Your task to perform on an android device: turn on data saver in the chrome app Image 0: 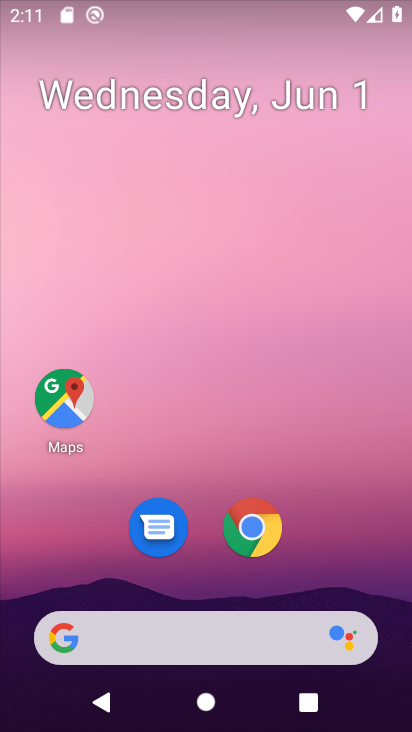
Step 0: click (256, 525)
Your task to perform on an android device: turn on data saver in the chrome app Image 1: 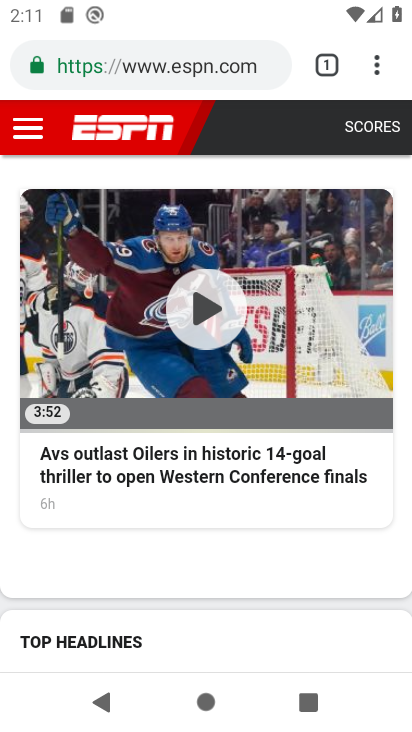
Step 1: click (380, 66)
Your task to perform on an android device: turn on data saver in the chrome app Image 2: 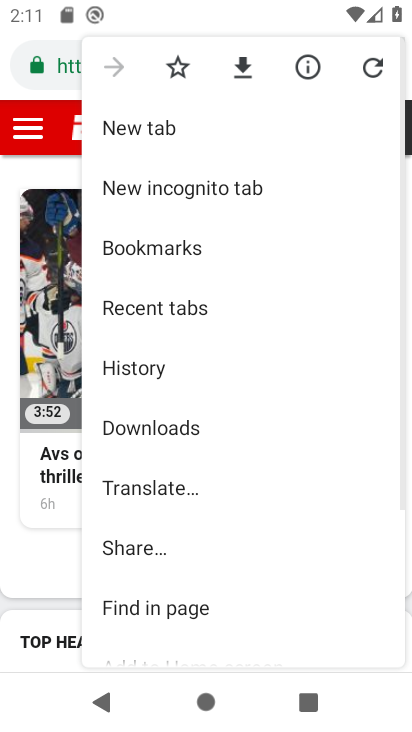
Step 2: drag from (186, 602) to (235, 217)
Your task to perform on an android device: turn on data saver in the chrome app Image 3: 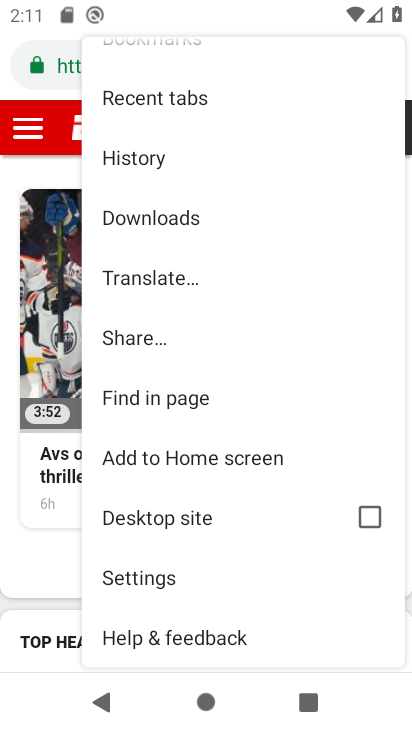
Step 3: click (166, 587)
Your task to perform on an android device: turn on data saver in the chrome app Image 4: 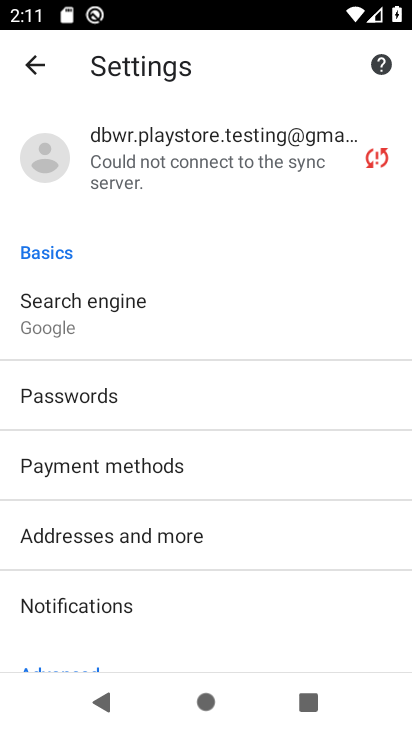
Step 4: drag from (166, 524) to (186, 240)
Your task to perform on an android device: turn on data saver in the chrome app Image 5: 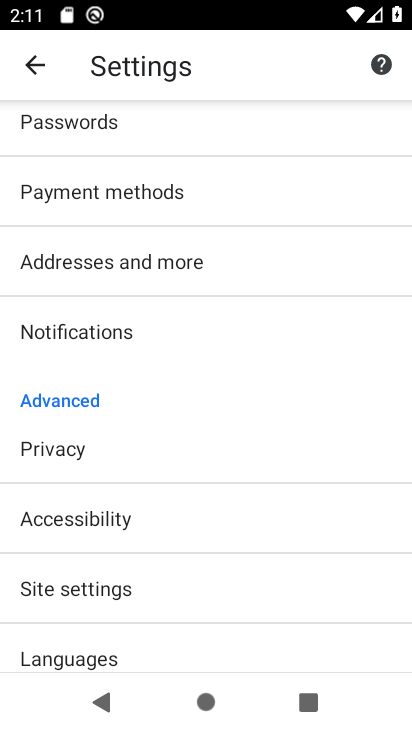
Step 5: drag from (121, 621) to (174, 311)
Your task to perform on an android device: turn on data saver in the chrome app Image 6: 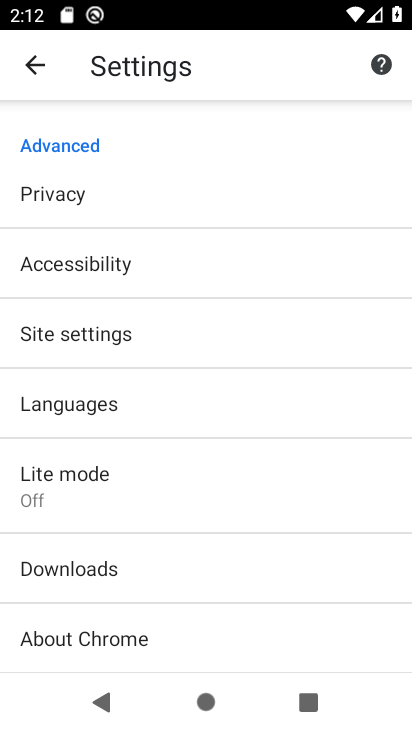
Step 6: click (94, 505)
Your task to perform on an android device: turn on data saver in the chrome app Image 7: 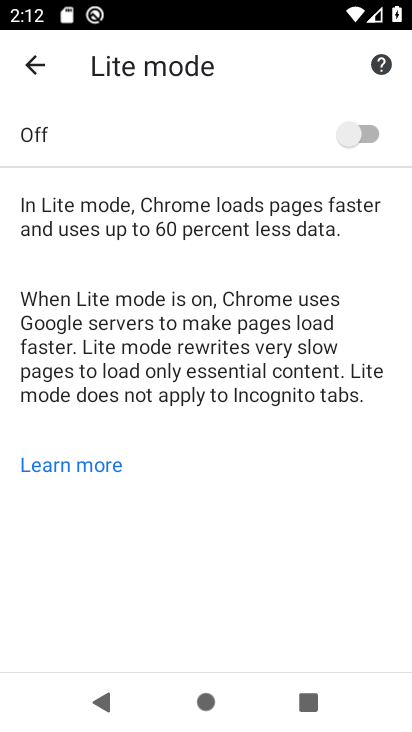
Step 7: click (361, 138)
Your task to perform on an android device: turn on data saver in the chrome app Image 8: 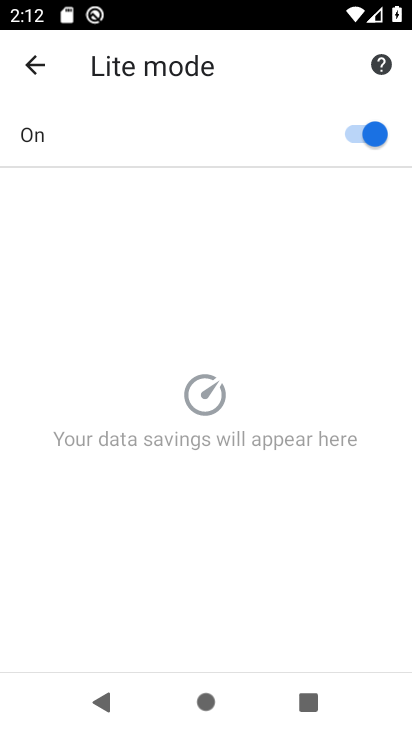
Step 8: task complete